Your task to perform on an android device: change the clock display to digital Image 0: 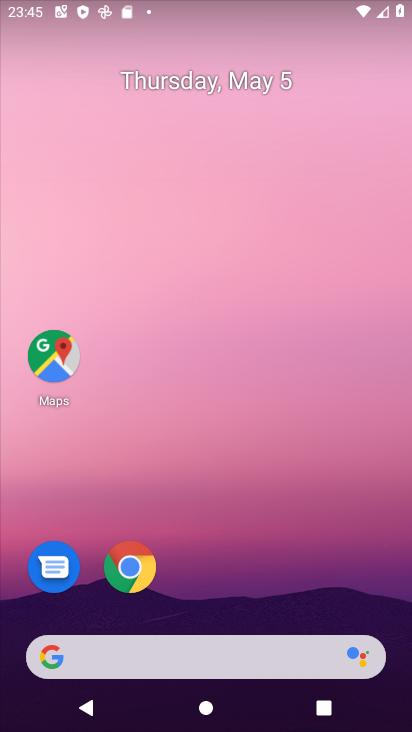
Step 0: drag from (231, 602) to (242, 90)
Your task to perform on an android device: change the clock display to digital Image 1: 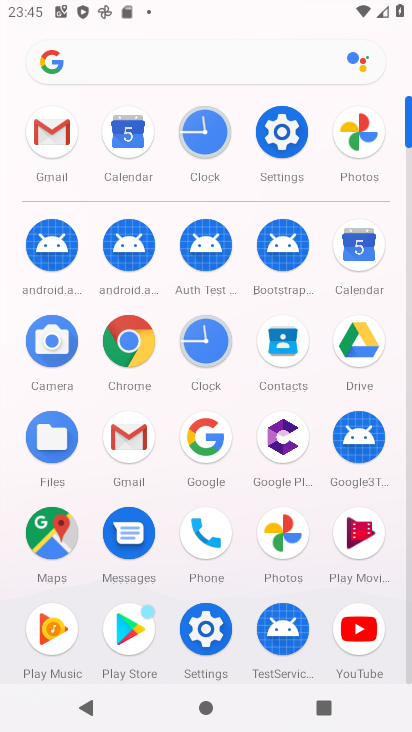
Step 1: click (189, 138)
Your task to perform on an android device: change the clock display to digital Image 2: 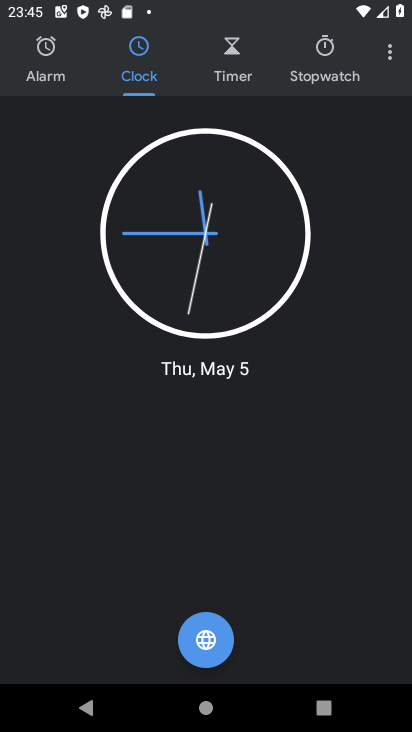
Step 2: click (390, 45)
Your task to perform on an android device: change the clock display to digital Image 3: 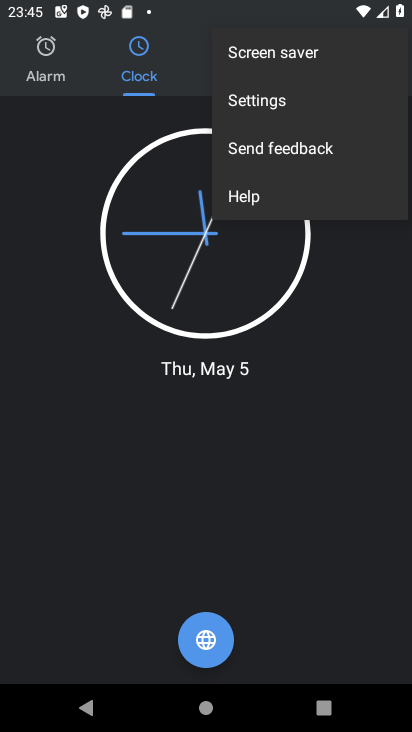
Step 3: click (280, 108)
Your task to perform on an android device: change the clock display to digital Image 4: 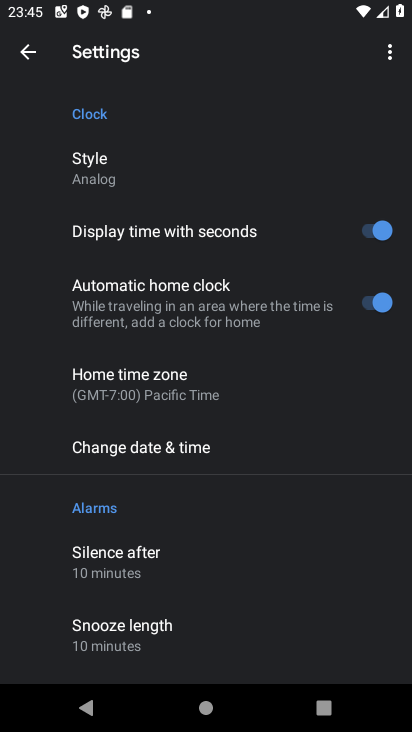
Step 4: click (126, 160)
Your task to perform on an android device: change the clock display to digital Image 5: 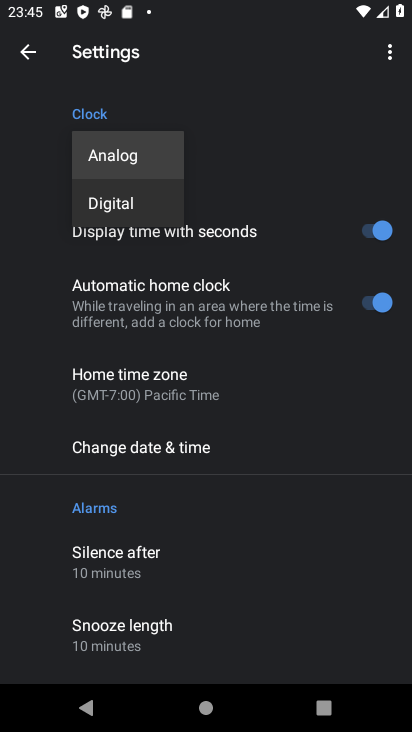
Step 5: click (125, 198)
Your task to perform on an android device: change the clock display to digital Image 6: 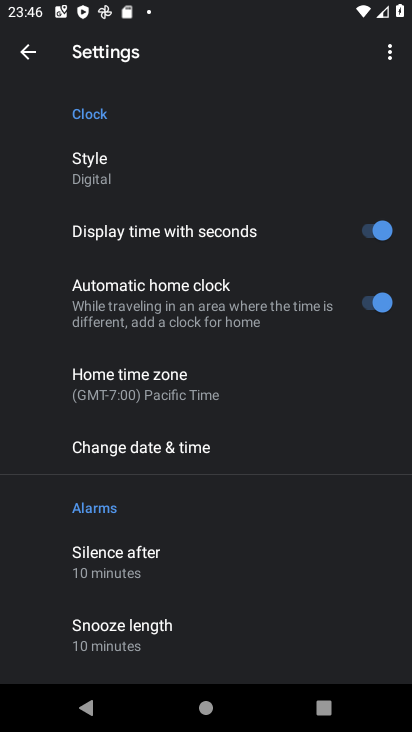
Step 6: task complete